Your task to perform on an android device: turn off notifications in google photos Image 0: 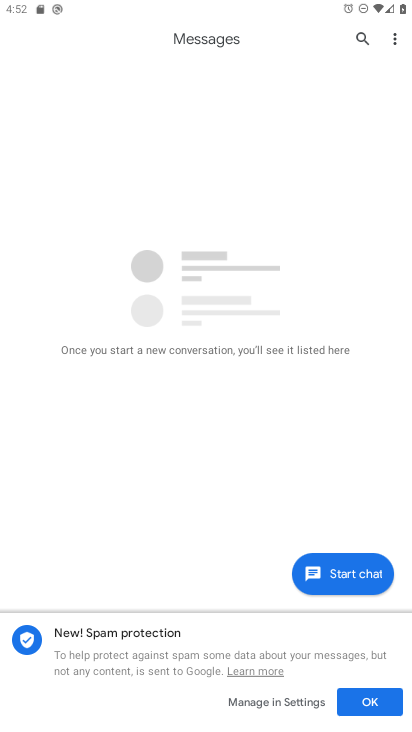
Step 0: press home button
Your task to perform on an android device: turn off notifications in google photos Image 1: 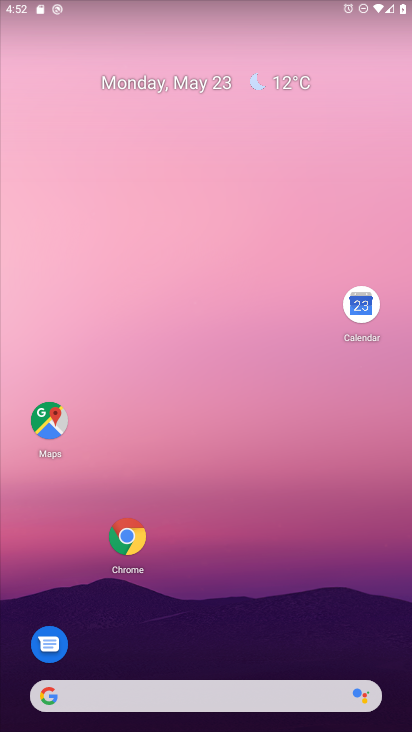
Step 1: drag from (280, 571) to (211, 83)
Your task to perform on an android device: turn off notifications in google photos Image 2: 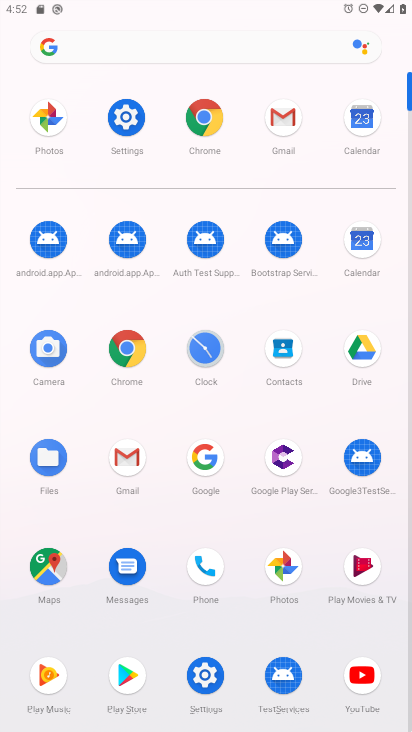
Step 2: click (49, 109)
Your task to perform on an android device: turn off notifications in google photos Image 3: 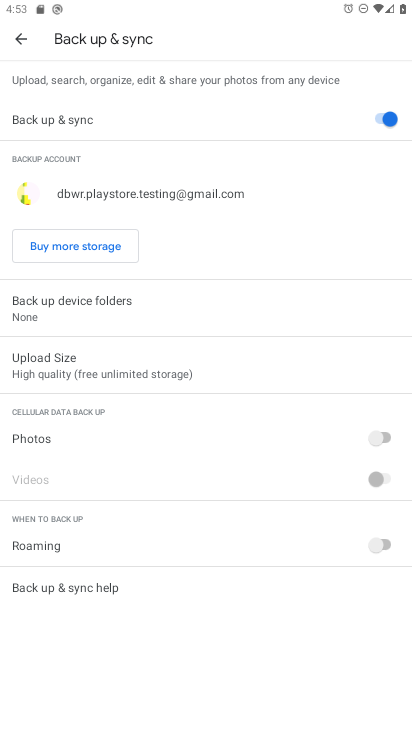
Step 3: drag from (183, 208) to (173, 563)
Your task to perform on an android device: turn off notifications in google photos Image 4: 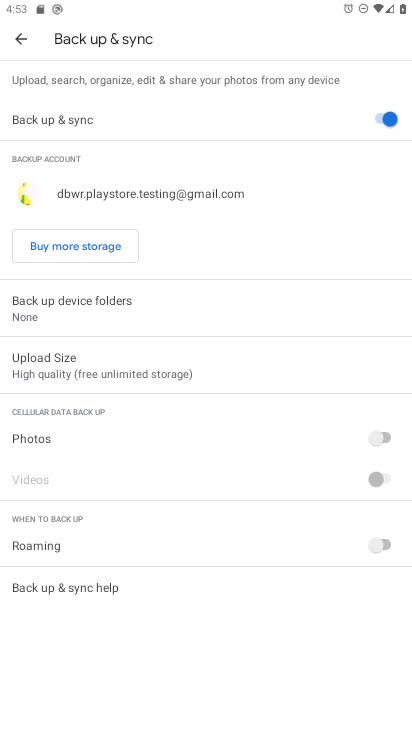
Step 4: drag from (148, 172) to (168, 505)
Your task to perform on an android device: turn off notifications in google photos Image 5: 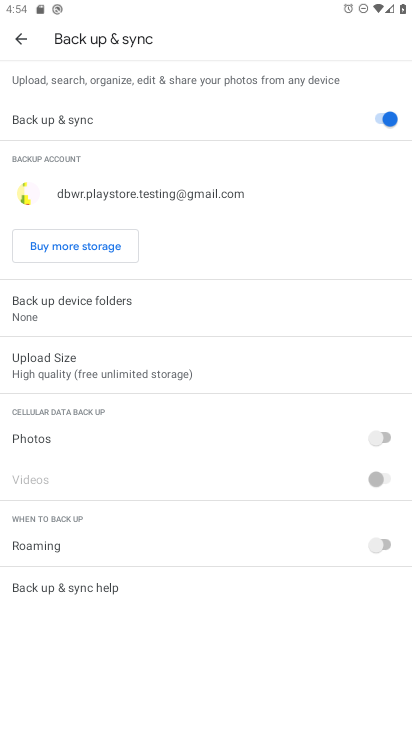
Step 5: click (16, 44)
Your task to perform on an android device: turn off notifications in google photos Image 6: 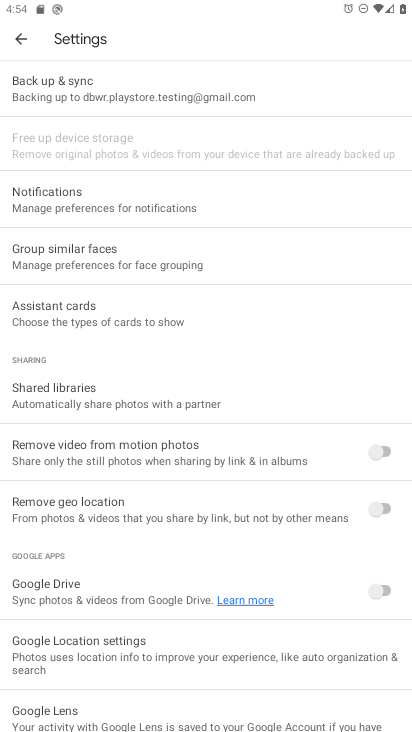
Step 6: click (113, 199)
Your task to perform on an android device: turn off notifications in google photos Image 7: 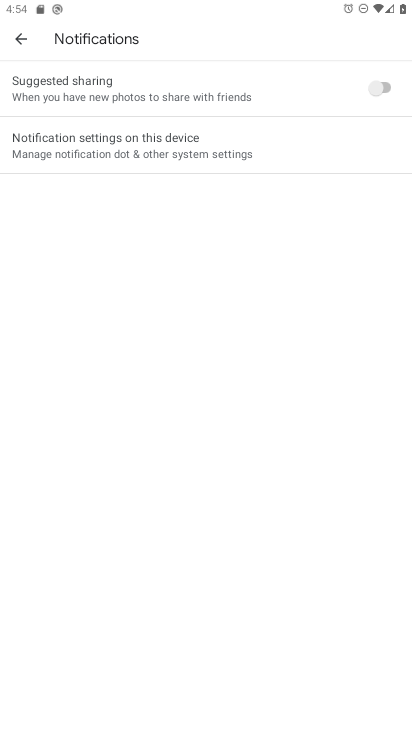
Step 7: click (146, 154)
Your task to perform on an android device: turn off notifications in google photos Image 8: 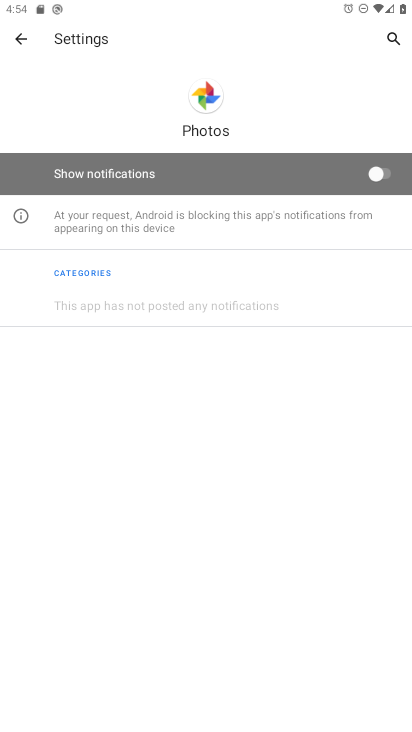
Step 8: task complete